Your task to perform on an android device: toggle improve location accuracy Image 0: 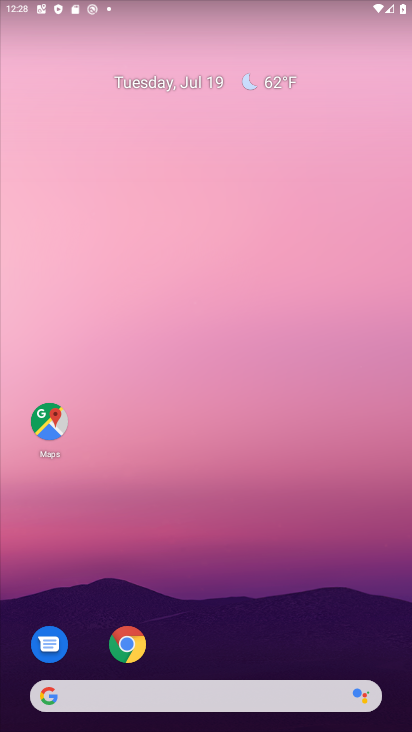
Step 0: drag from (235, 557) to (173, 55)
Your task to perform on an android device: toggle improve location accuracy Image 1: 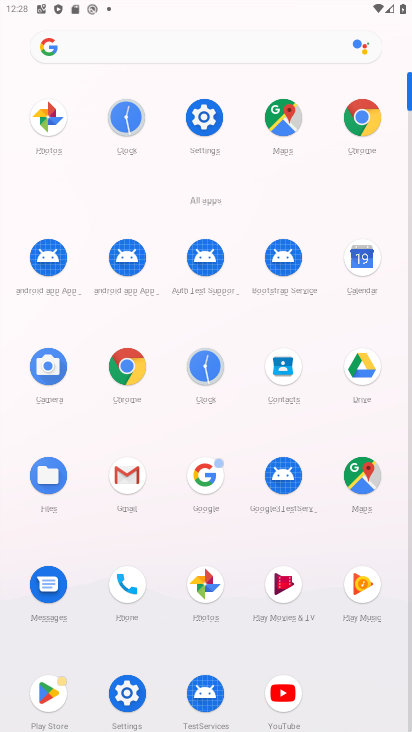
Step 1: click (200, 115)
Your task to perform on an android device: toggle improve location accuracy Image 2: 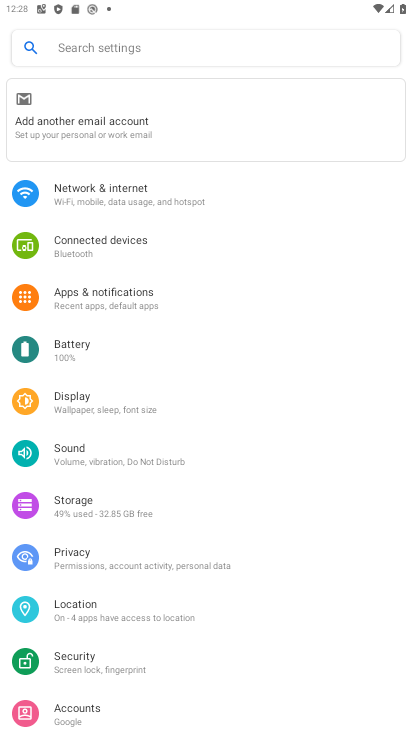
Step 2: click (70, 603)
Your task to perform on an android device: toggle improve location accuracy Image 3: 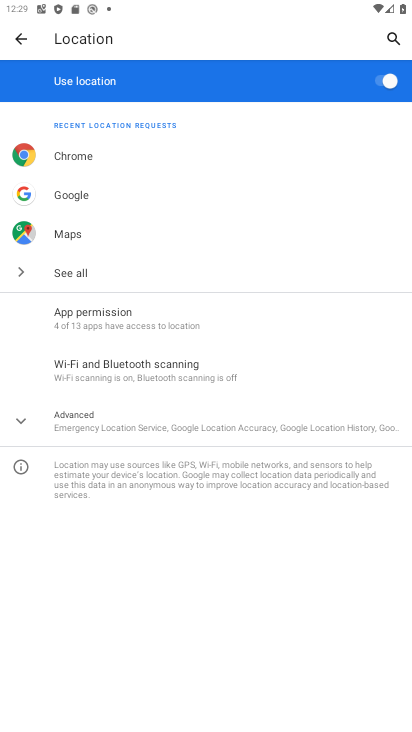
Step 3: click (31, 413)
Your task to perform on an android device: toggle improve location accuracy Image 4: 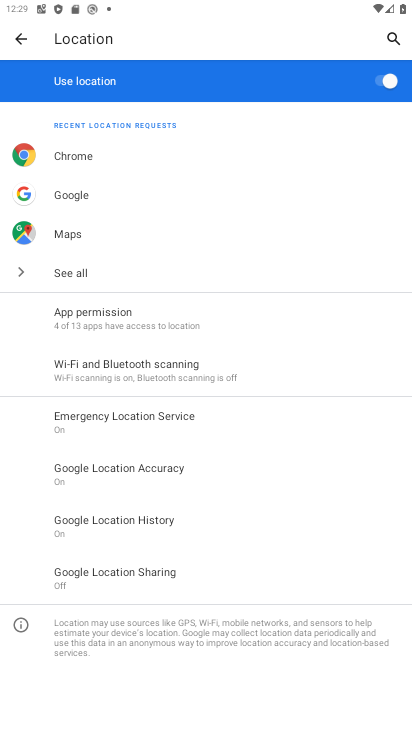
Step 4: click (155, 463)
Your task to perform on an android device: toggle improve location accuracy Image 5: 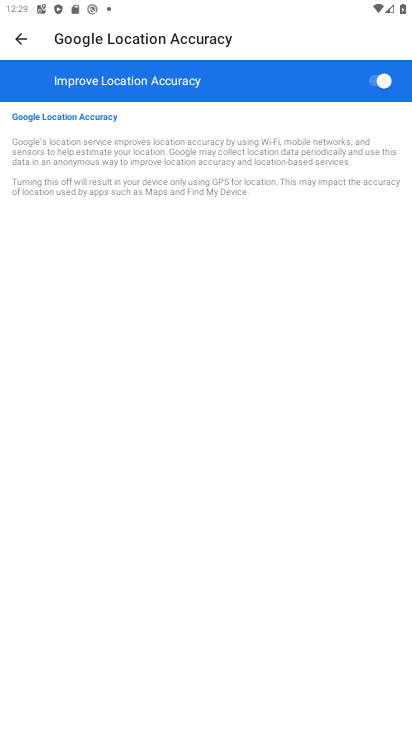
Step 5: click (377, 79)
Your task to perform on an android device: toggle improve location accuracy Image 6: 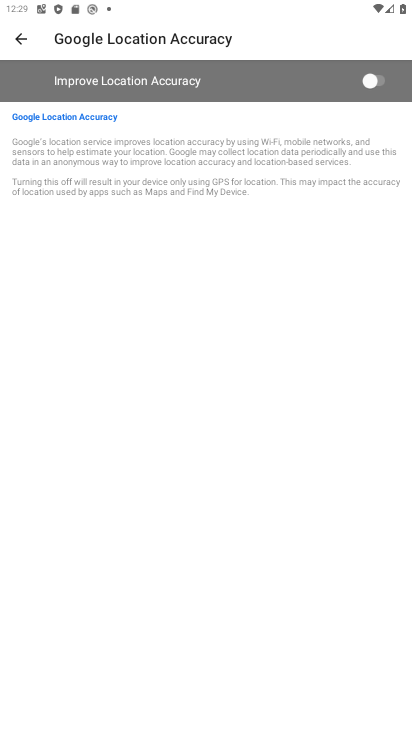
Step 6: task complete